Your task to perform on an android device: Go to internet settings Image 0: 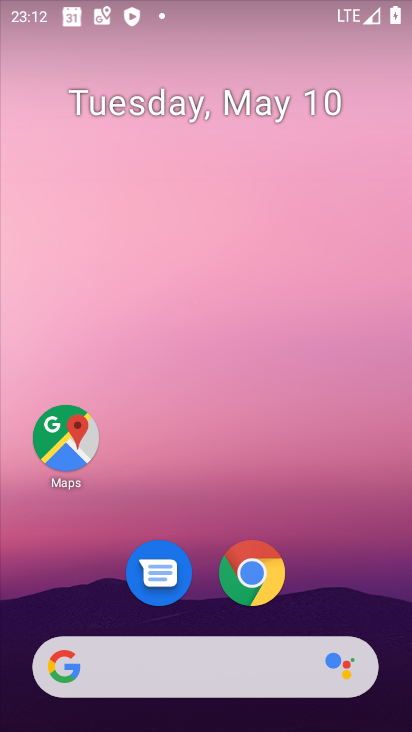
Step 0: click (54, 435)
Your task to perform on an android device: Go to internet settings Image 1: 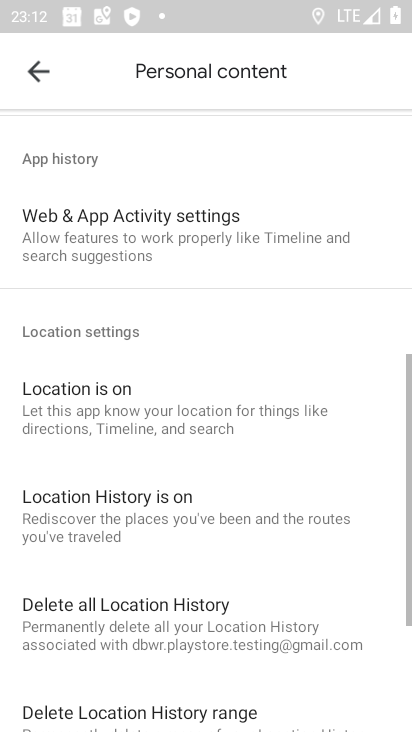
Step 1: press home button
Your task to perform on an android device: Go to internet settings Image 2: 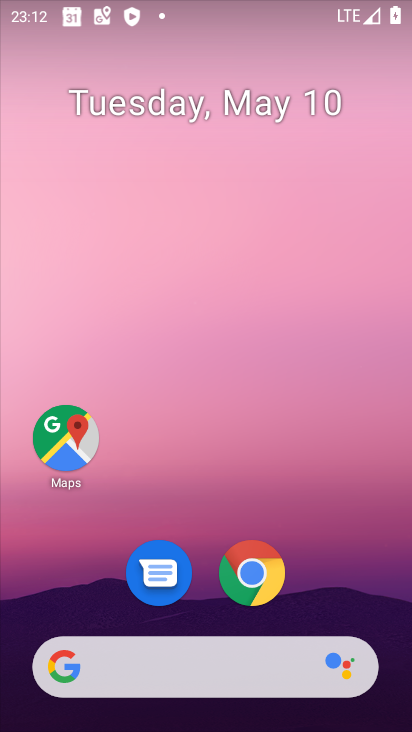
Step 2: drag from (297, 511) to (159, 40)
Your task to perform on an android device: Go to internet settings Image 3: 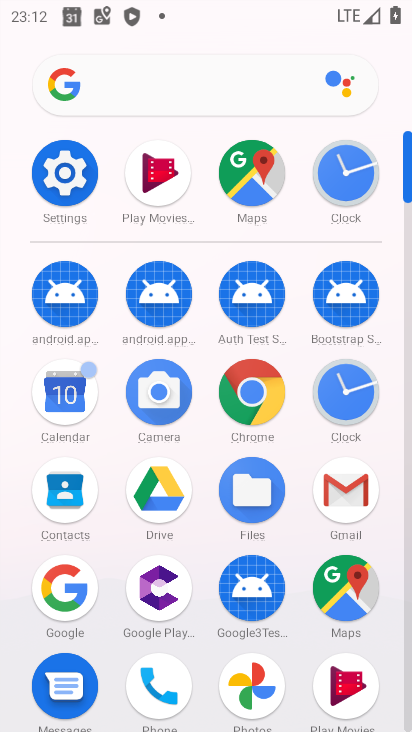
Step 3: click (59, 177)
Your task to perform on an android device: Go to internet settings Image 4: 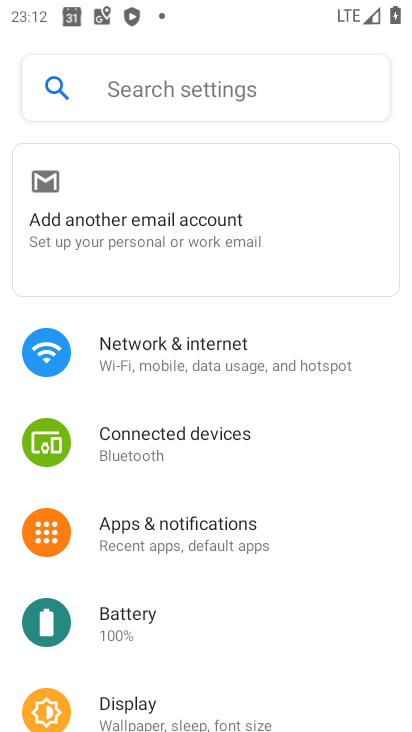
Step 4: click (183, 344)
Your task to perform on an android device: Go to internet settings Image 5: 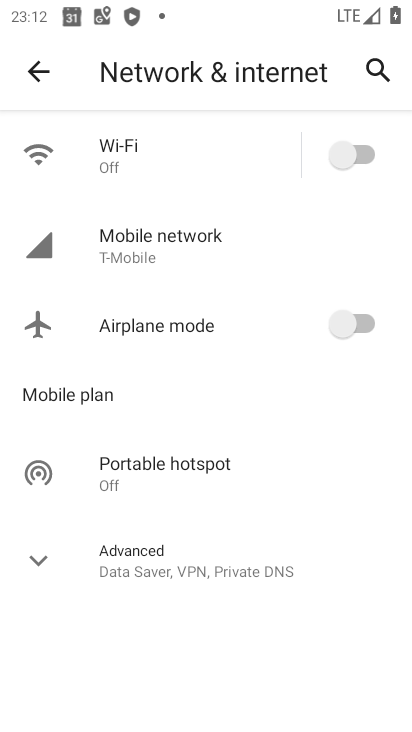
Step 5: task complete